Your task to perform on an android device: snooze an email in the gmail app Image 0: 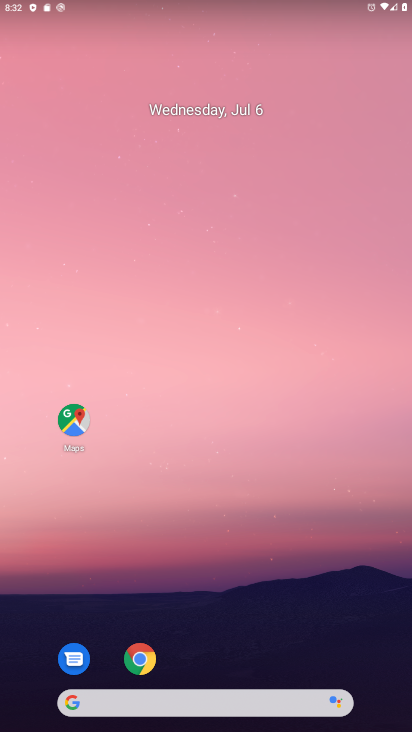
Step 0: drag from (315, 696) to (304, 95)
Your task to perform on an android device: snooze an email in the gmail app Image 1: 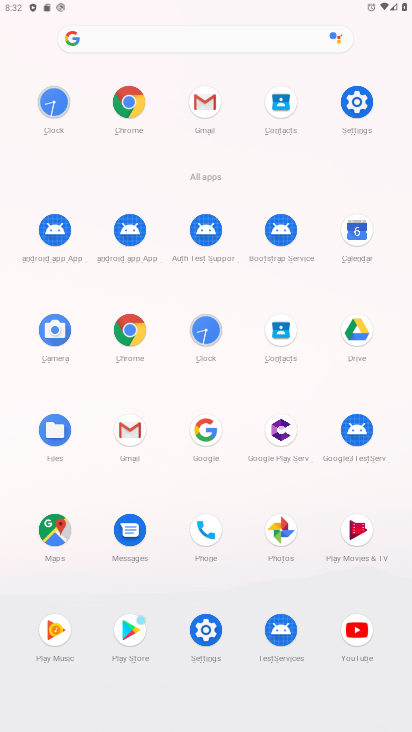
Step 1: click (137, 434)
Your task to perform on an android device: snooze an email in the gmail app Image 2: 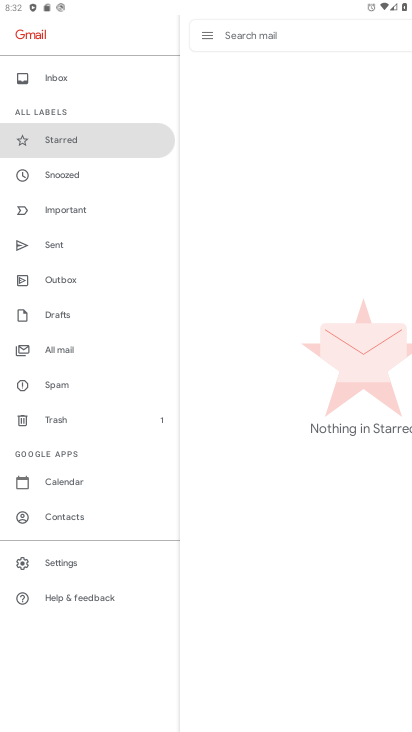
Step 2: click (109, 179)
Your task to perform on an android device: snooze an email in the gmail app Image 3: 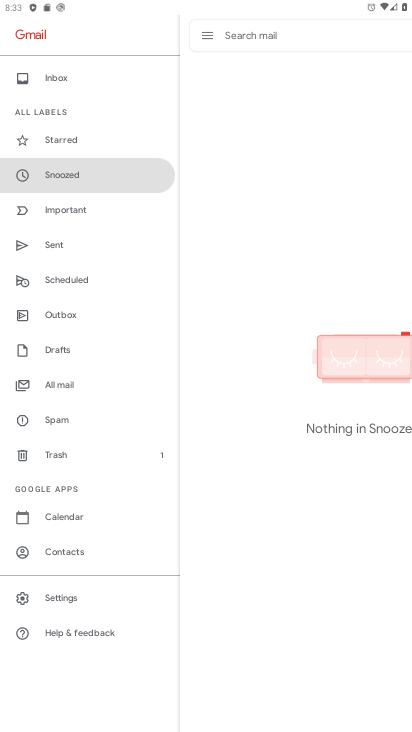
Step 3: click (222, 305)
Your task to perform on an android device: snooze an email in the gmail app Image 4: 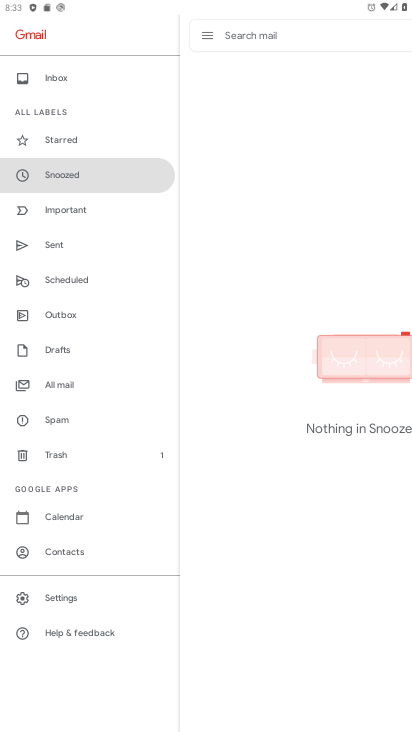
Step 4: task complete